Your task to perform on an android device: Open Wikipedia Image 0: 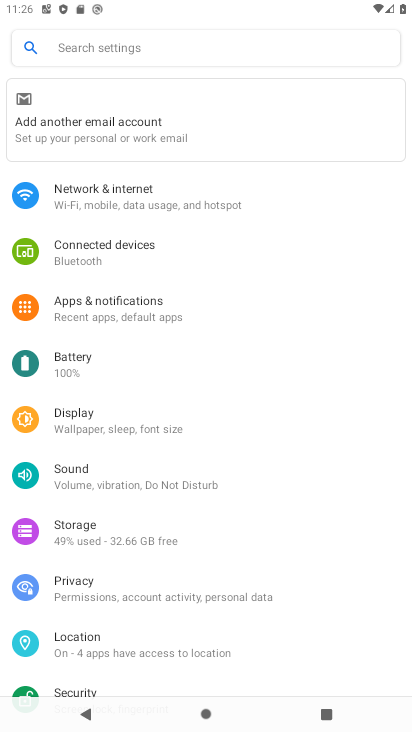
Step 0: press home button
Your task to perform on an android device: Open Wikipedia Image 1: 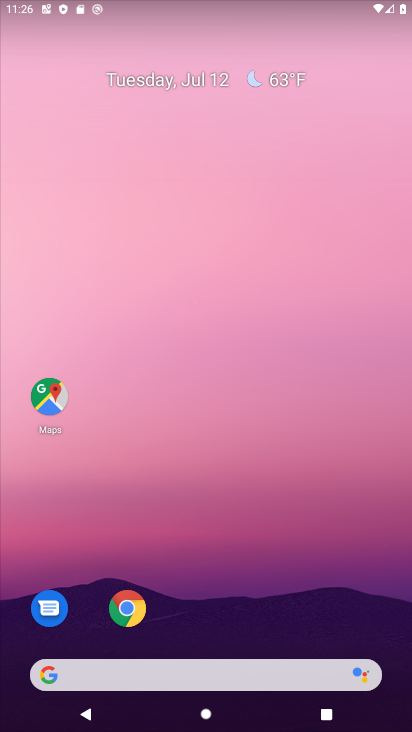
Step 1: click (126, 606)
Your task to perform on an android device: Open Wikipedia Image 2: 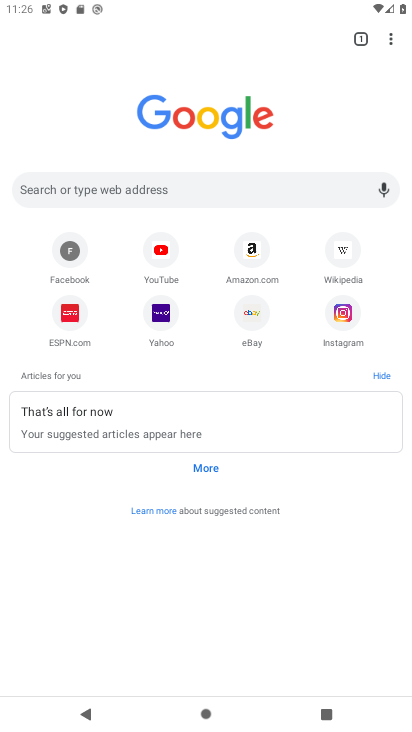
Step 2: click (338, 248)
Your task to perform on an android device: Open Wikipedia Image 3: 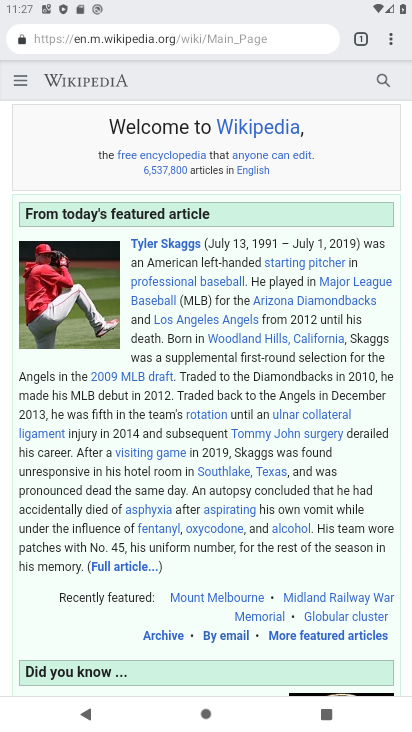
Step 3: task complete